Your task to perform on an android device: change alarm snooze length Image 0: 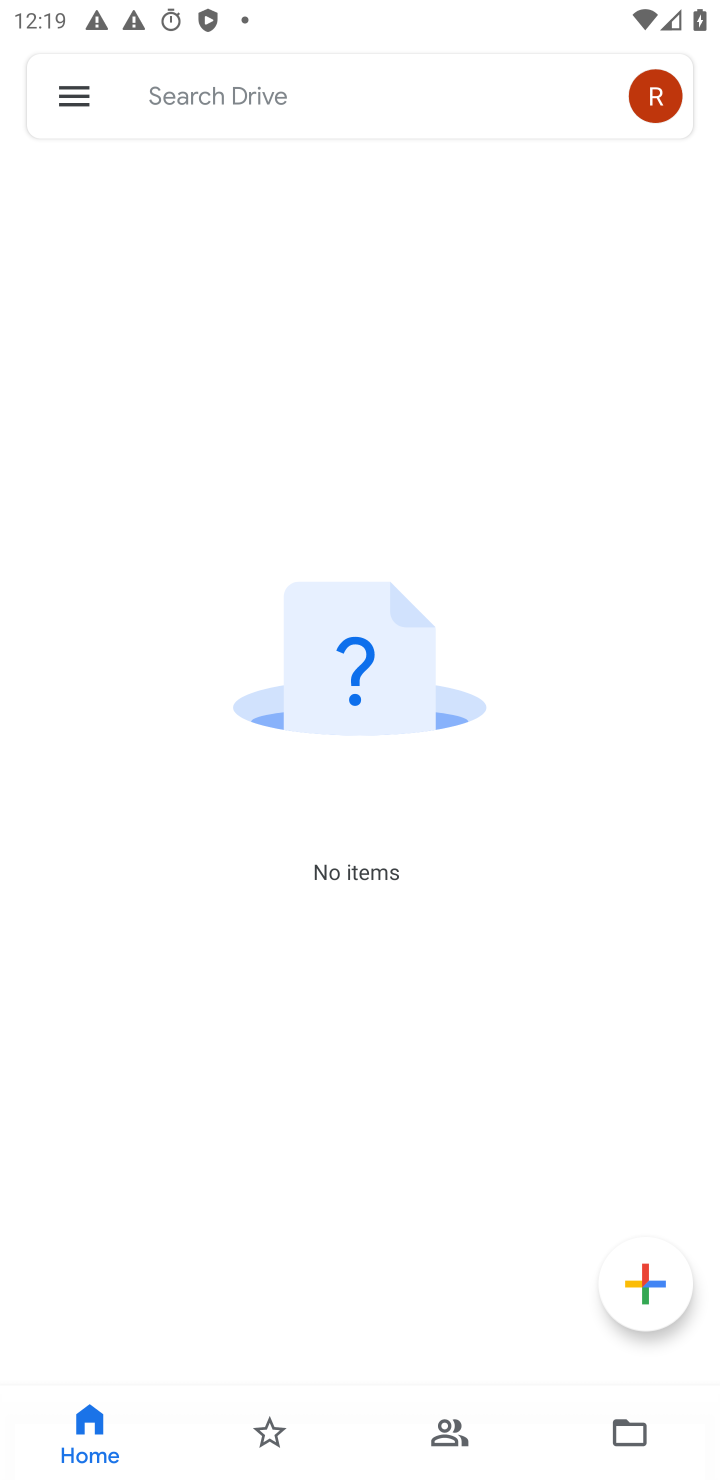
Step 0: press home button
Your task to perform on an android device: change alarm snooze length Image 1: 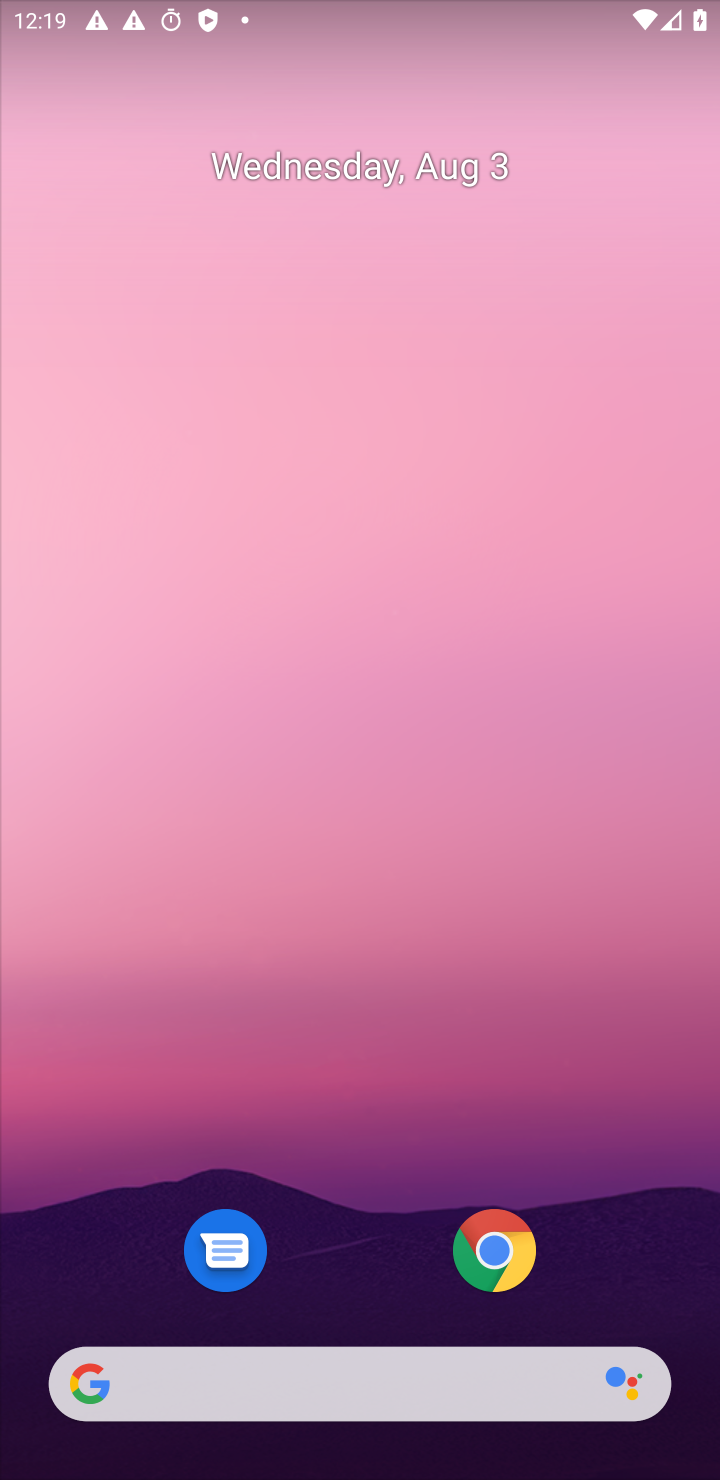
Step 1: drag from (341, 1242) to (499, 29)
Your task to perform on an android device: change alarm snooze length Image 2: 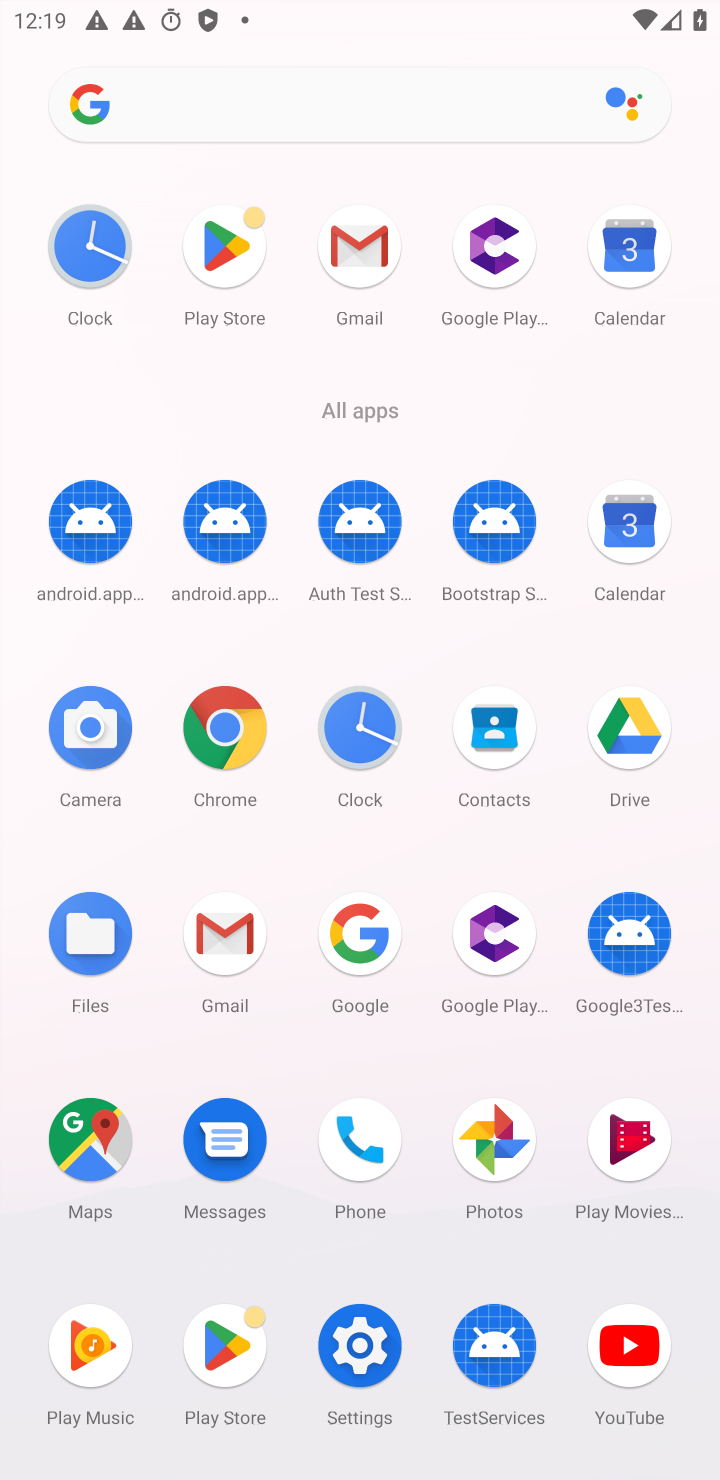
Step 2: click (365, 698)
Your task to perform on an android device: change alarm snooze length Image 3: 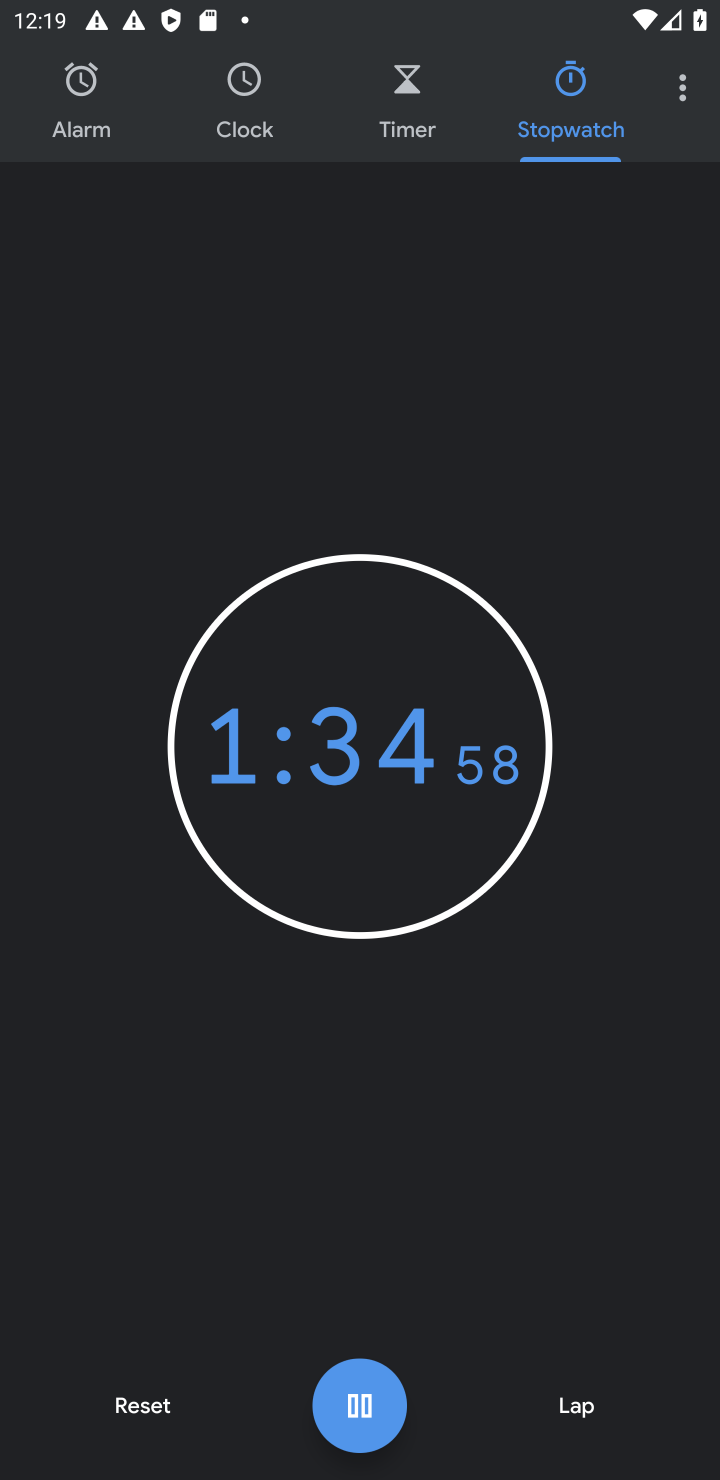
Step 3: click (682, 80)
Your task to perform on an android device: change alarm snooze length Image 4: 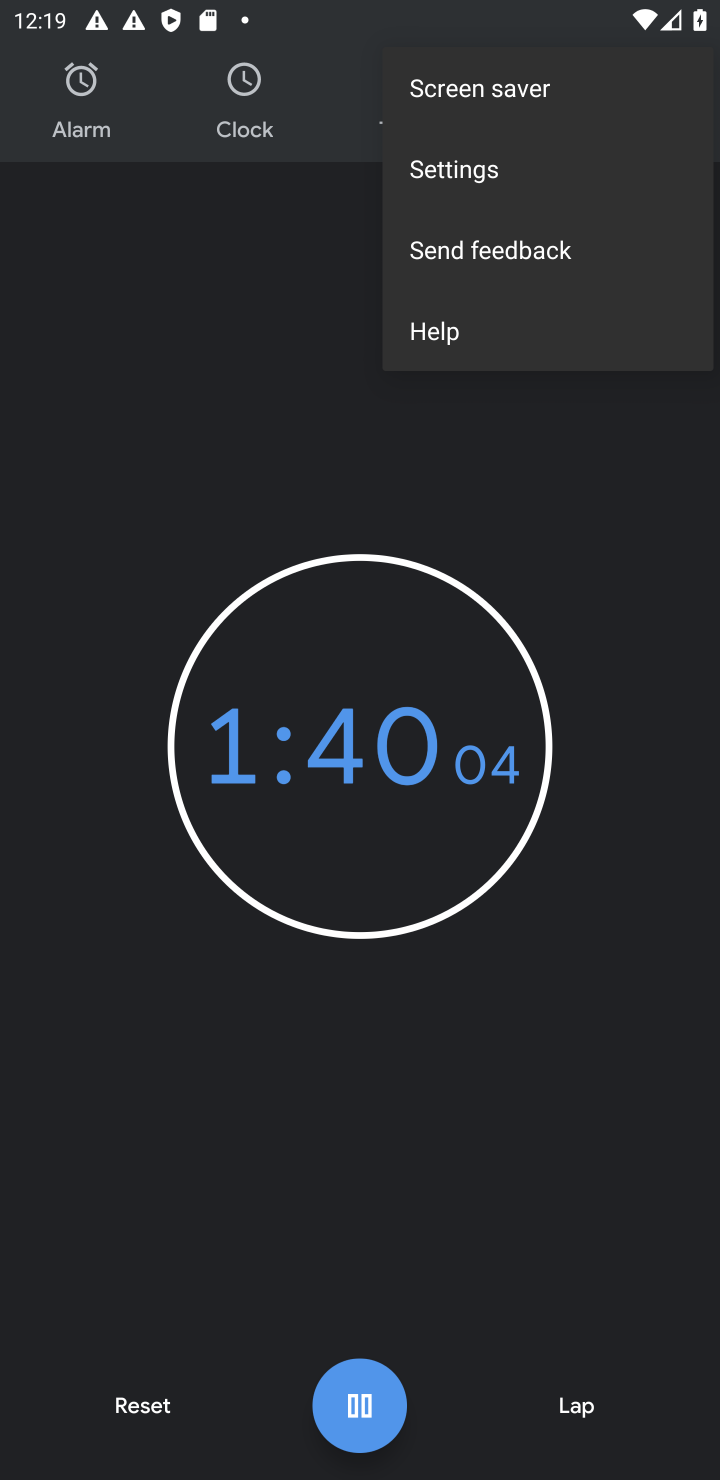
Step 4: click (516, 168)
Your task to perform on an android device: change alarm snooze length Image 5: 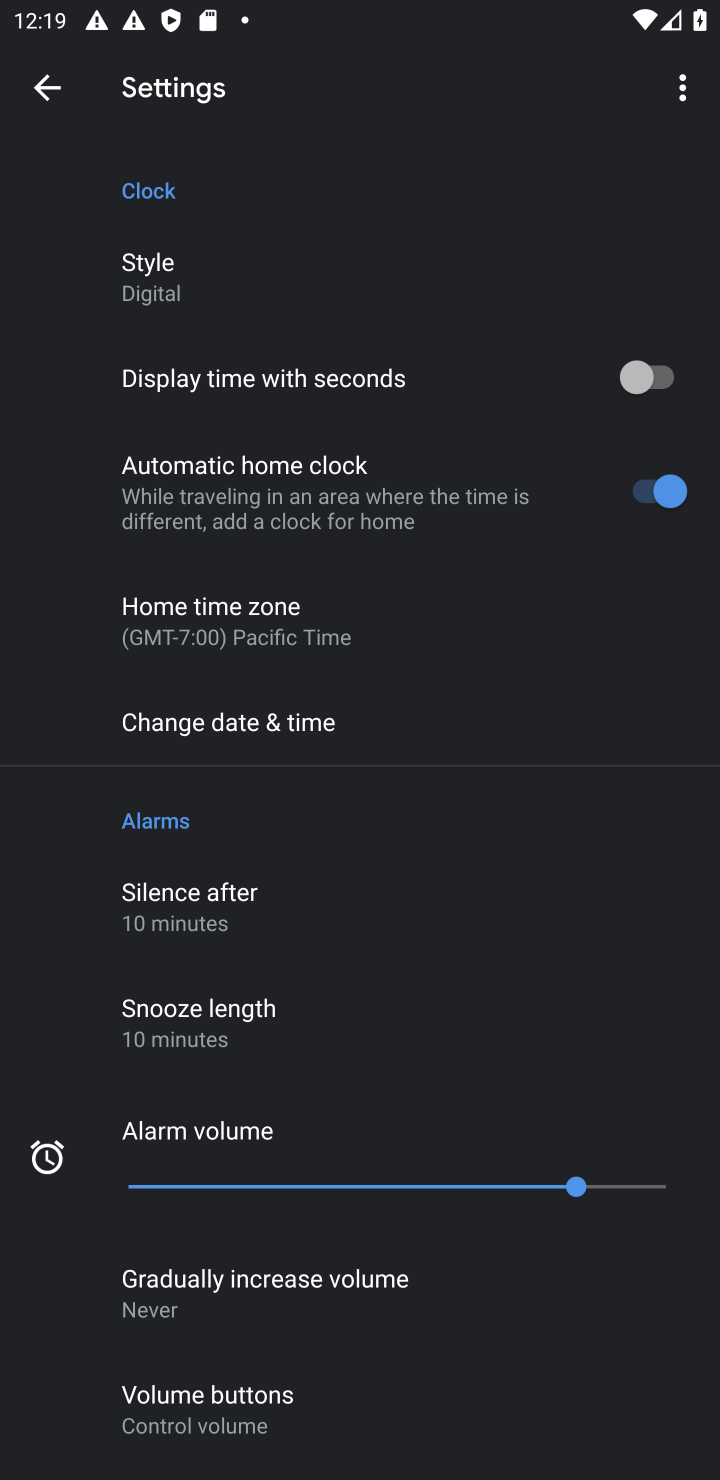
Step 5: click (215, 1008)
Your task to perform on an android device: change alarm snooze length Image 6: 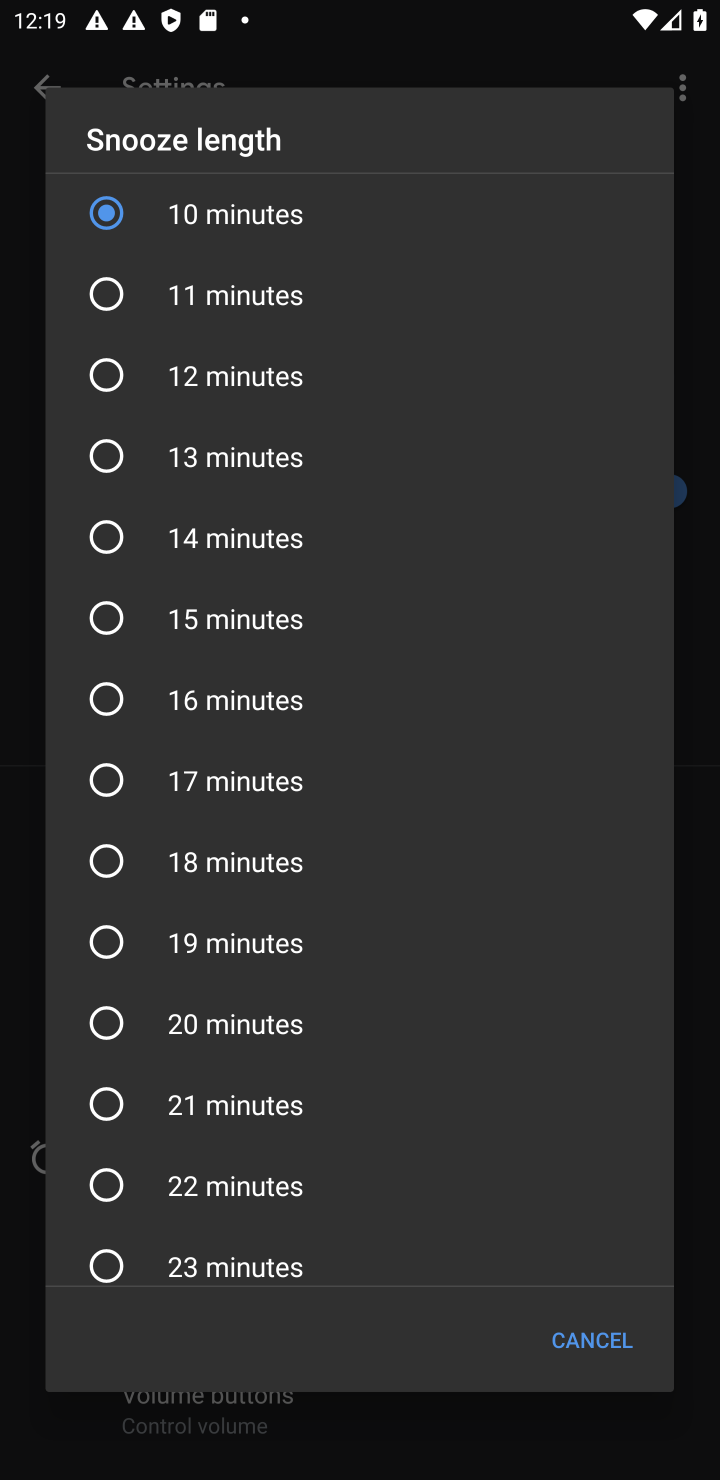
Step 6: click (217, 305)
Your task to perform on an android device: change alarm snooze length Image 7: 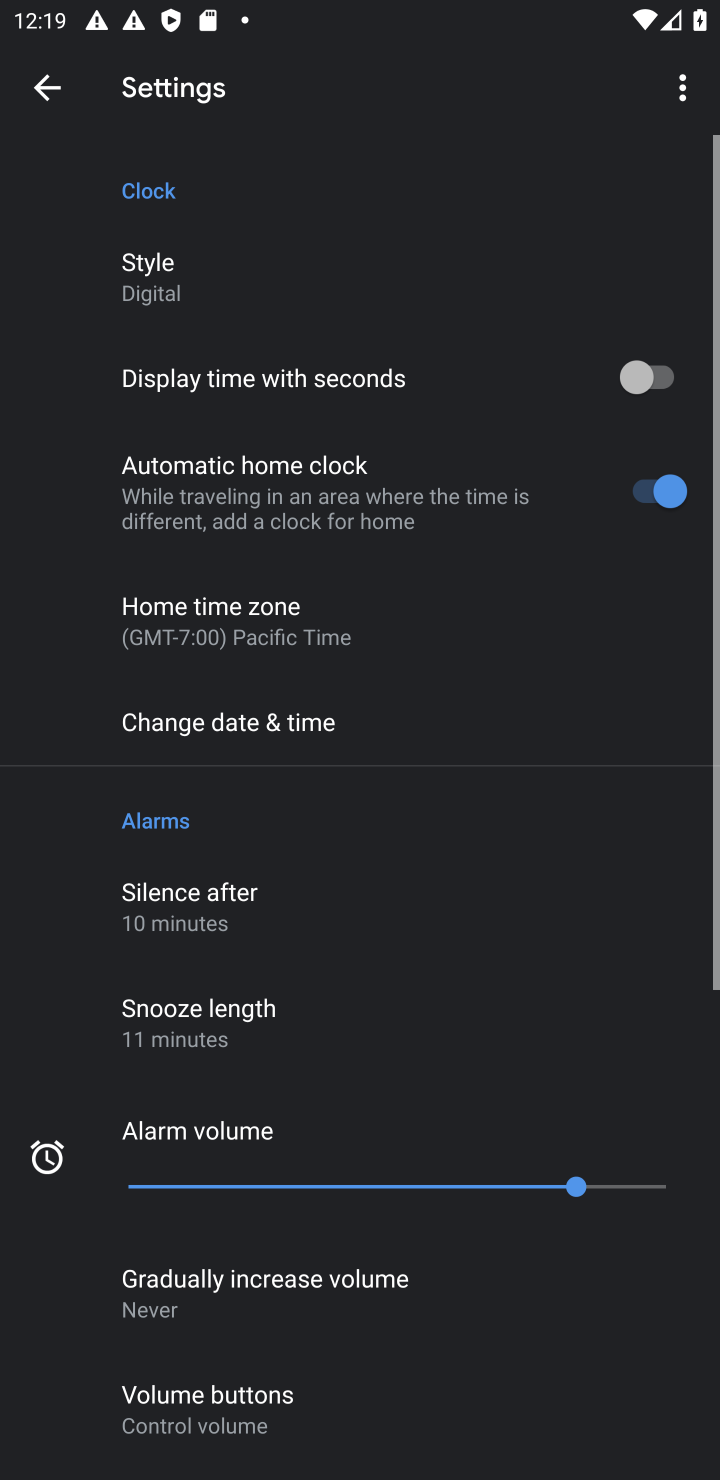
Step 7: task complete